Your task to perform on an android device: Play the last video I watched on Youtube Image 0: 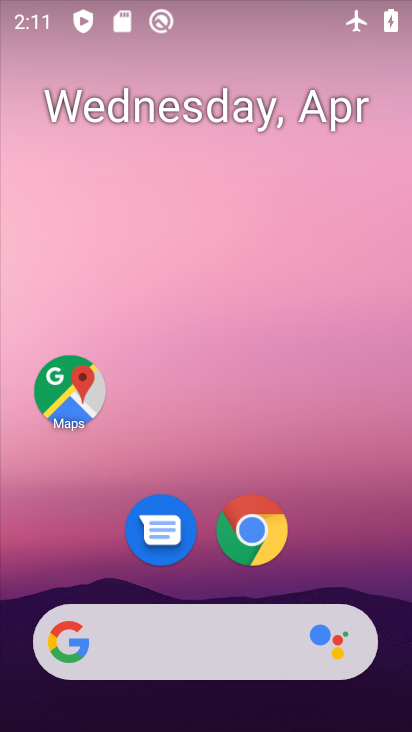
Step 0: drag from (349, 538) to (294, 137)
Your task to perform on an android device: Play the last video I watched on Youtube Image 1: 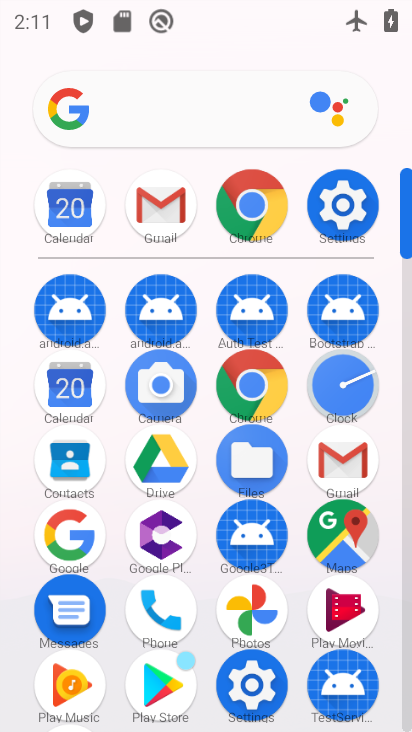
Step 1: drag from (289, 574) to (314, 239)
Your task to perform on an android device: Play the last video I watched on Youtube Image 2: 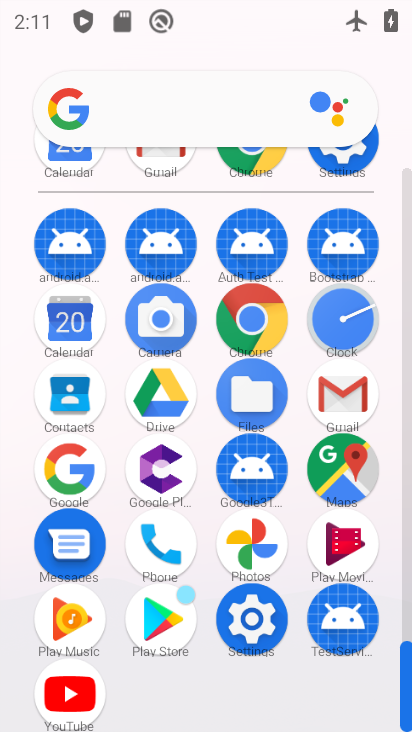
Step 2: click (83, 694)
Your task to perform on an android device: Play the last video I watched on Youtube Image 3: 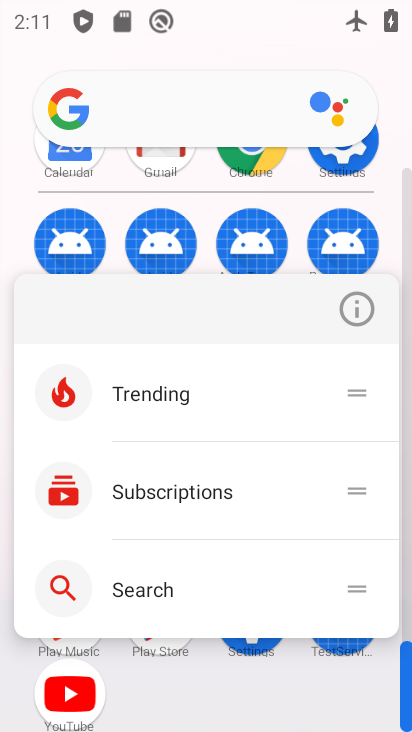
Step 3: click (79, 695)
Your task to perform on an android device: Play the last video I watched on Youtube Image 4: 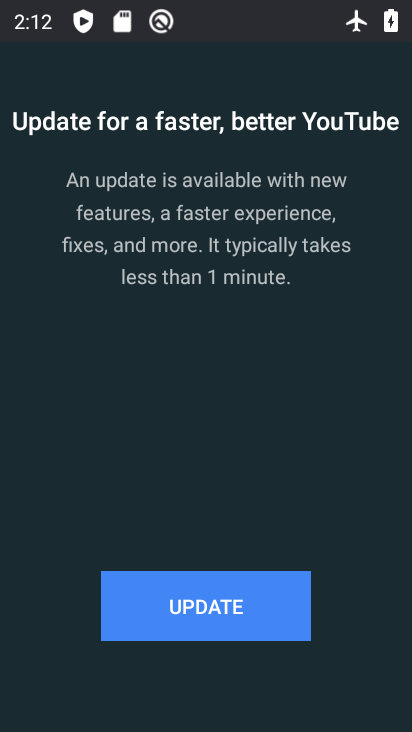
Step 4: click (126, 641)
Your task to perform on an android device: Play the last video I watched on Youtube Image 5: 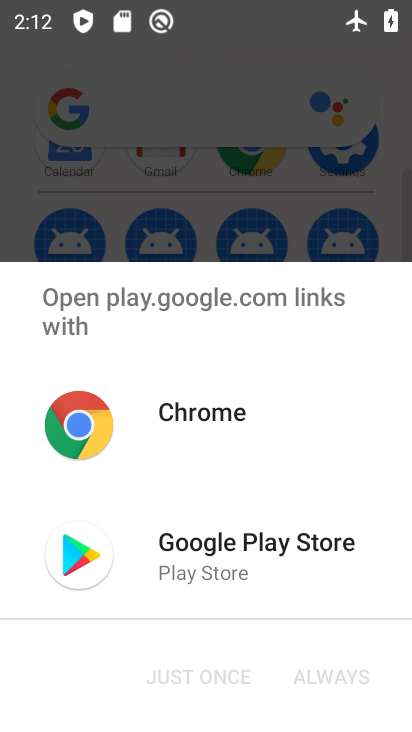
Step 5: task complete